Your task to perform on an android device: Go to Android settings Image 0: 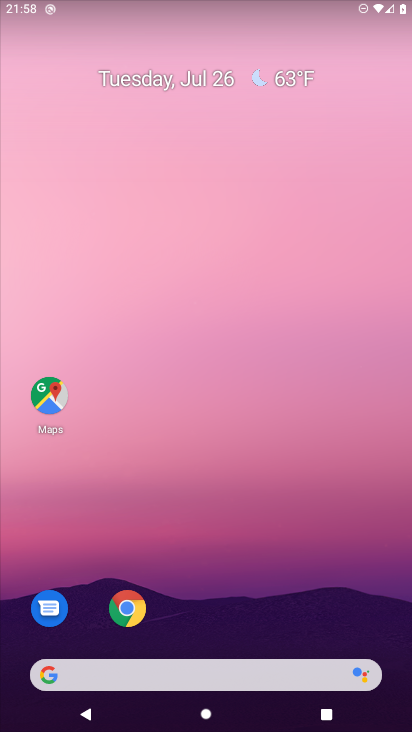
Step 0: drag from (17, 702) to (225, 170)
Your task to perform on an android device: Go to Android settings Image 1: 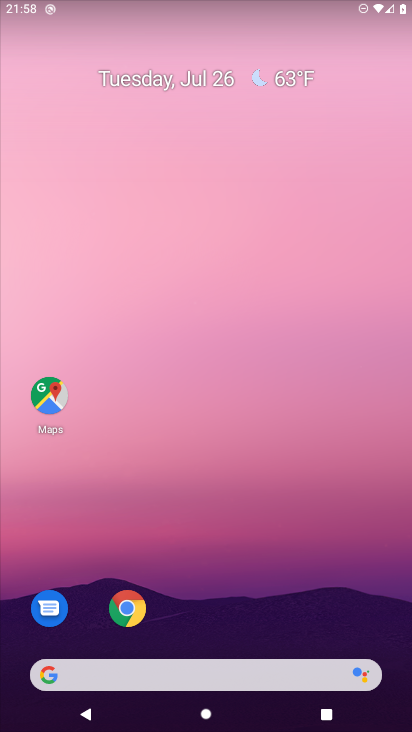
Step 1: drag from (35, 704) to (217, 27)
Your task to perform on an android device: Go to Android settings Image 2: 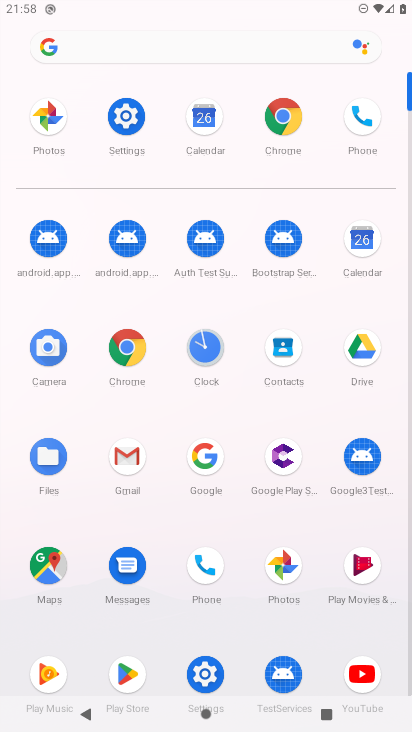
Step 2: click (202, 675)
Your task to perform on an android device: Go to Android settings Image 3: 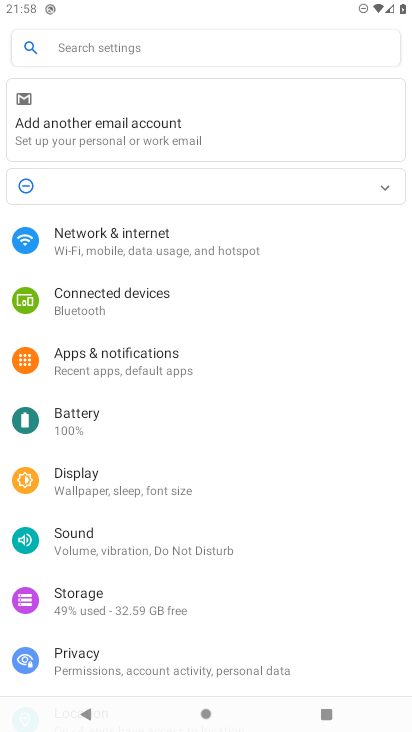
Step 3: drag from (315, 641) to (333, 39)
Your task to perform on an android device: Go to Android settings Image 4: 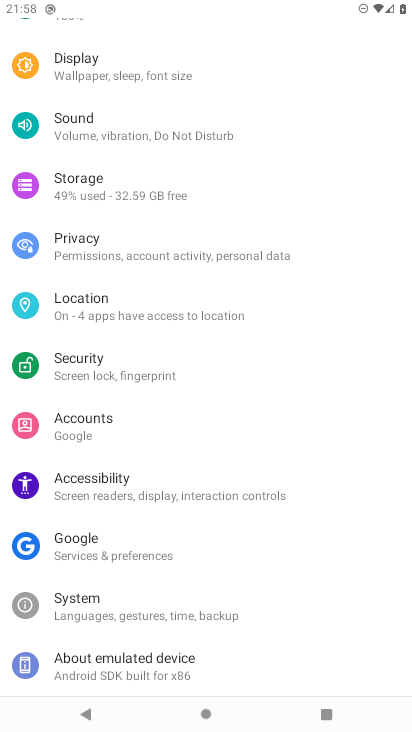
Step 4: click (142, 672)
Your task to perform on an android device: Go to Android settings Image 5: 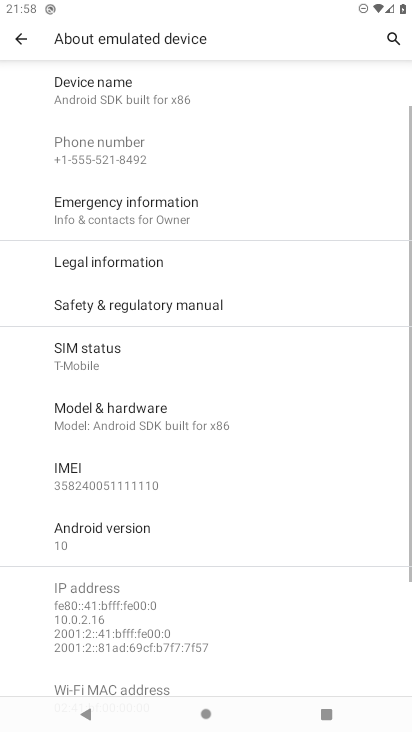
Step 5: click (122, 544)
Your task to perform on an android device: Go to Android settings Image 6: 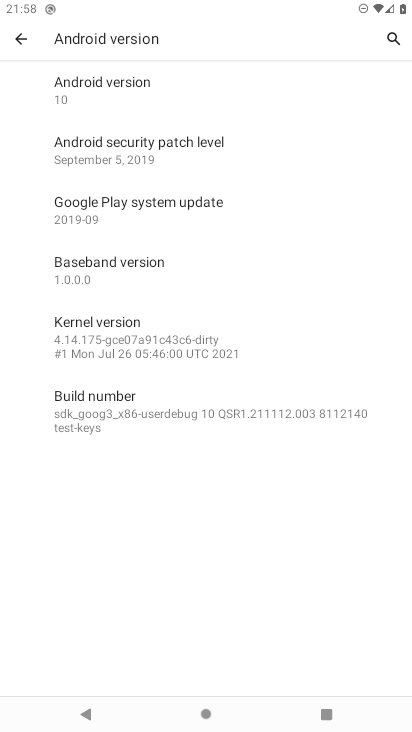
Step 6: task complete